Your task to perform on an android device: turn off sleep mode Image 0: 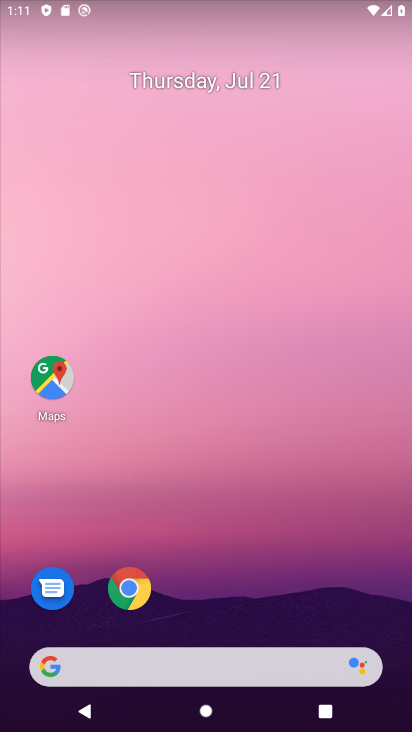
Step 0: drag from (216, 633) to (224, 78)
Your task to perform on an android device: turn off sleep mode Image 1: 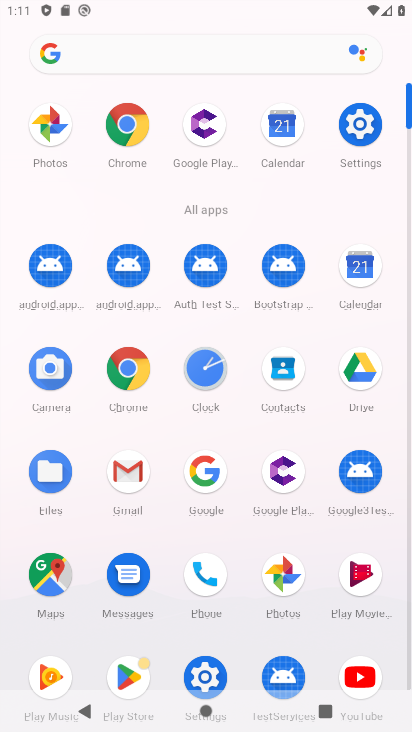
Step 1: click (355, 140)
Your task to perform on an android device: turn off sleep mode Image 2: 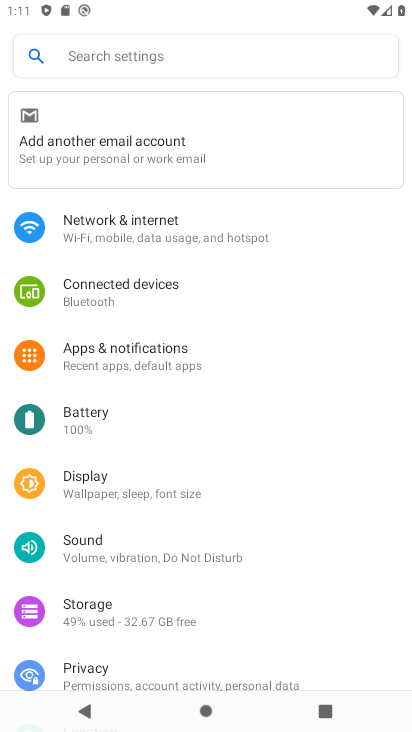
Step 2: click (97, 501)
Your task to perform on an android device: turn off sleep mode Image 3: 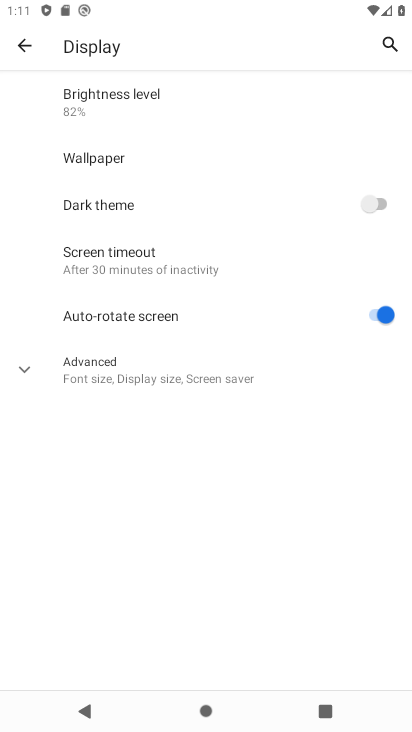
Step 3: click (97, 391)
Your task to perform on an android device: turn off sleep mode Image 4: 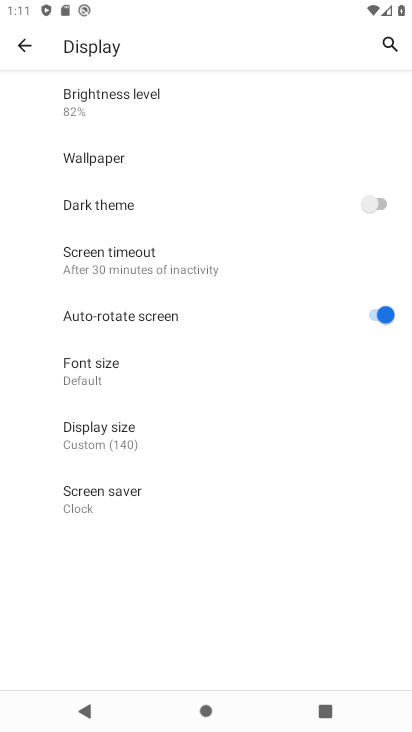
Step 4: task complete